Your task to perform on an android device: Show me popular games on the Play Store Image 0: 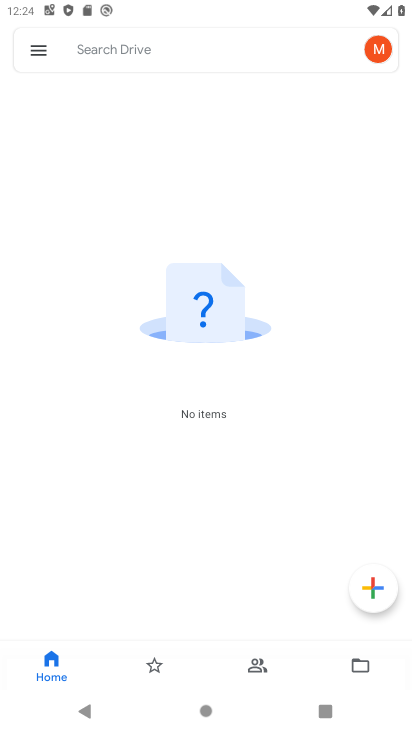
Step 0: press home button
Your task to perform on an android device: Show me popular games on the Play Store Image 1: 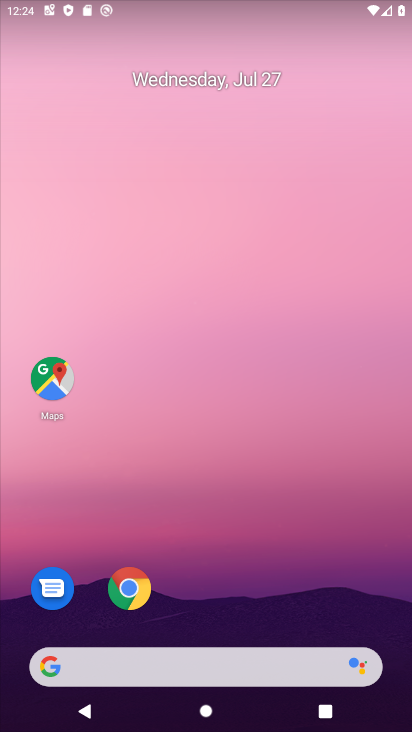
Step 1: drag from (69, 661) to (267, 94)
Your task to perform on an android device: Show me popular games on the Play Store Image 2: 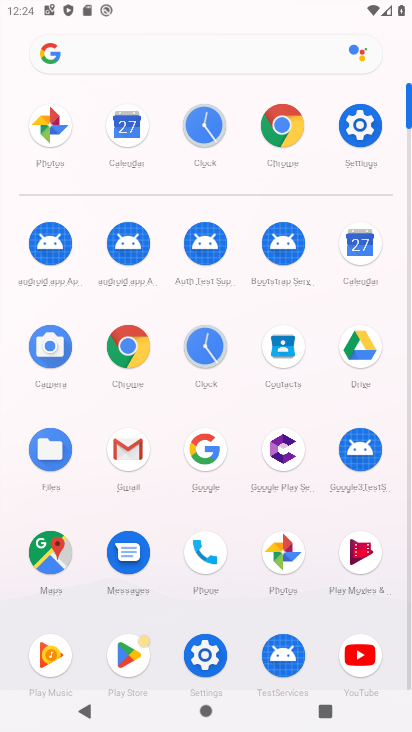
Step 2: click (111, 660)
Your task to perform on an android device: Show me popular games on the Play Store Image 3: 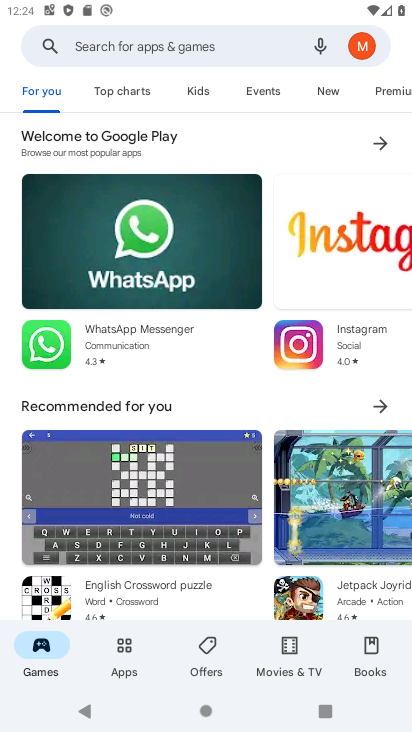
Step 3: click (132, 41)
Your task to perform on an android device: Show me popular games on the Play Store Image 4: 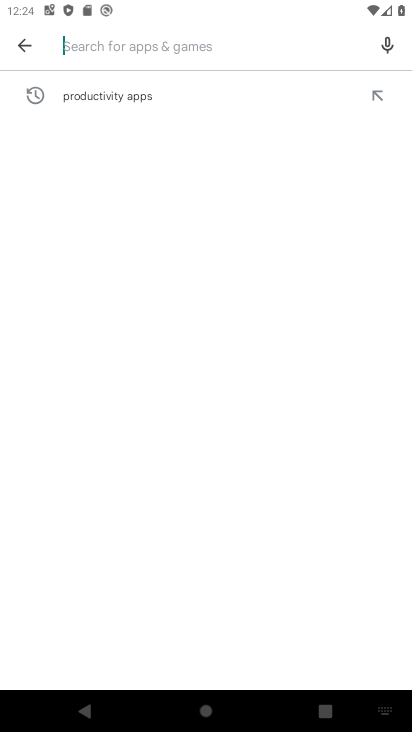
Step 4: type "popular games "
Your task to perform on an android device: Show me popular games on the Play Store Image 5: 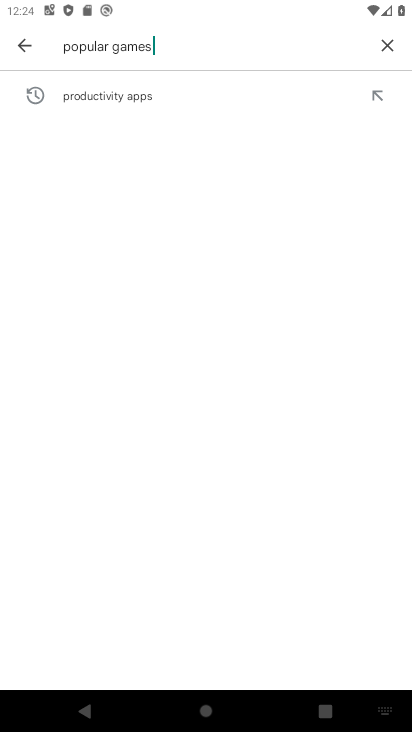
Step 5: type ""
Your task to perform on an android device: Show me popular games on the Play Store Image 6: 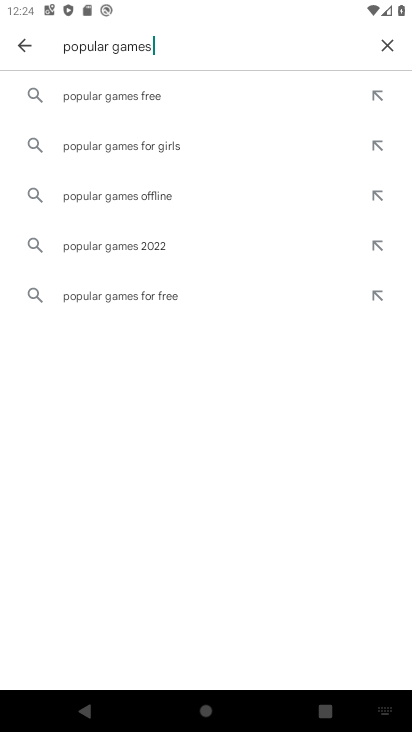
Step 6: type ""
Your task to perform on an android device: Show me popular games on the Play Store Image 7: 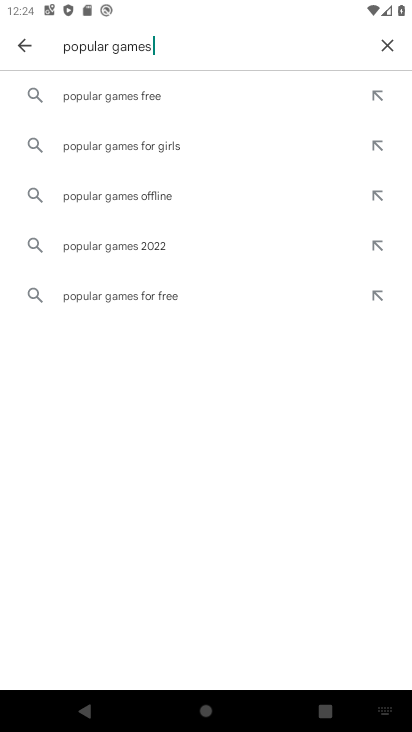
Step 7: type ""
Your task to perform on an android device: Show me popular games on the Play Store Image 8: 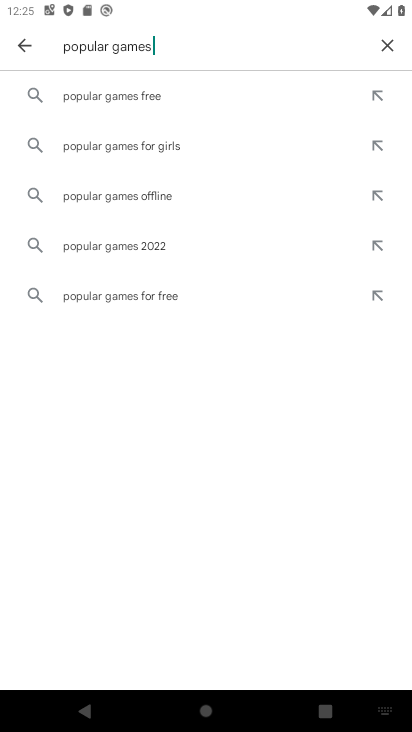
Step 8: type ""
Your task to perform on an android device: Show me popular games on the Play Store Image 9: 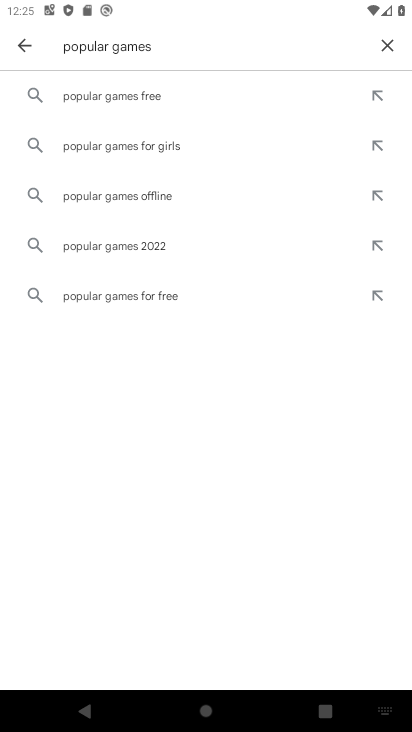
Step 9: type ""
Your task to perform on an android device: Show me popular games on the Play Store Image 10: 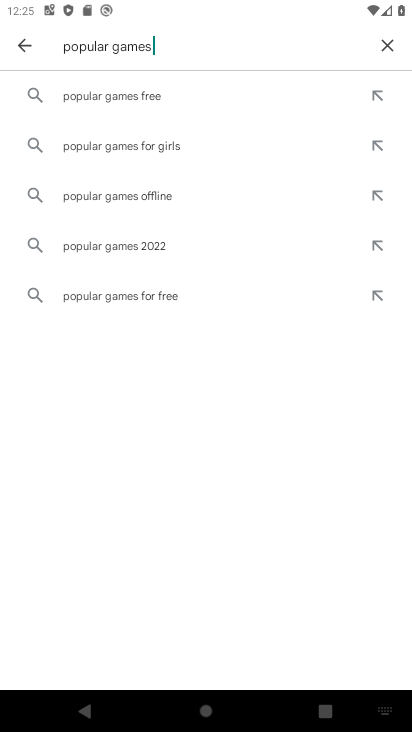
Step 10: task complete